Your task to perform on an android device: Go to privacy settings Image 0: 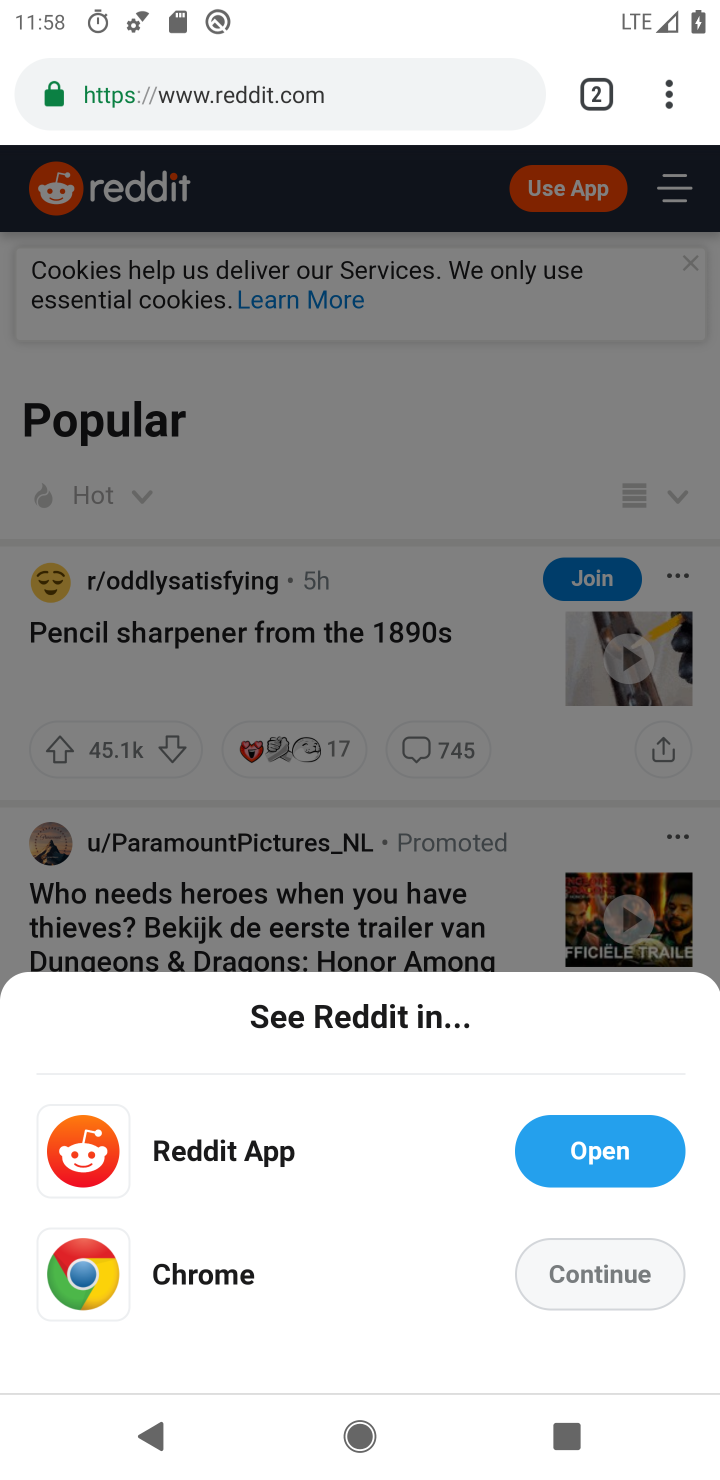
Step 0: press home button
Your task to perform on an android device: Go to privacy settings Image 1: 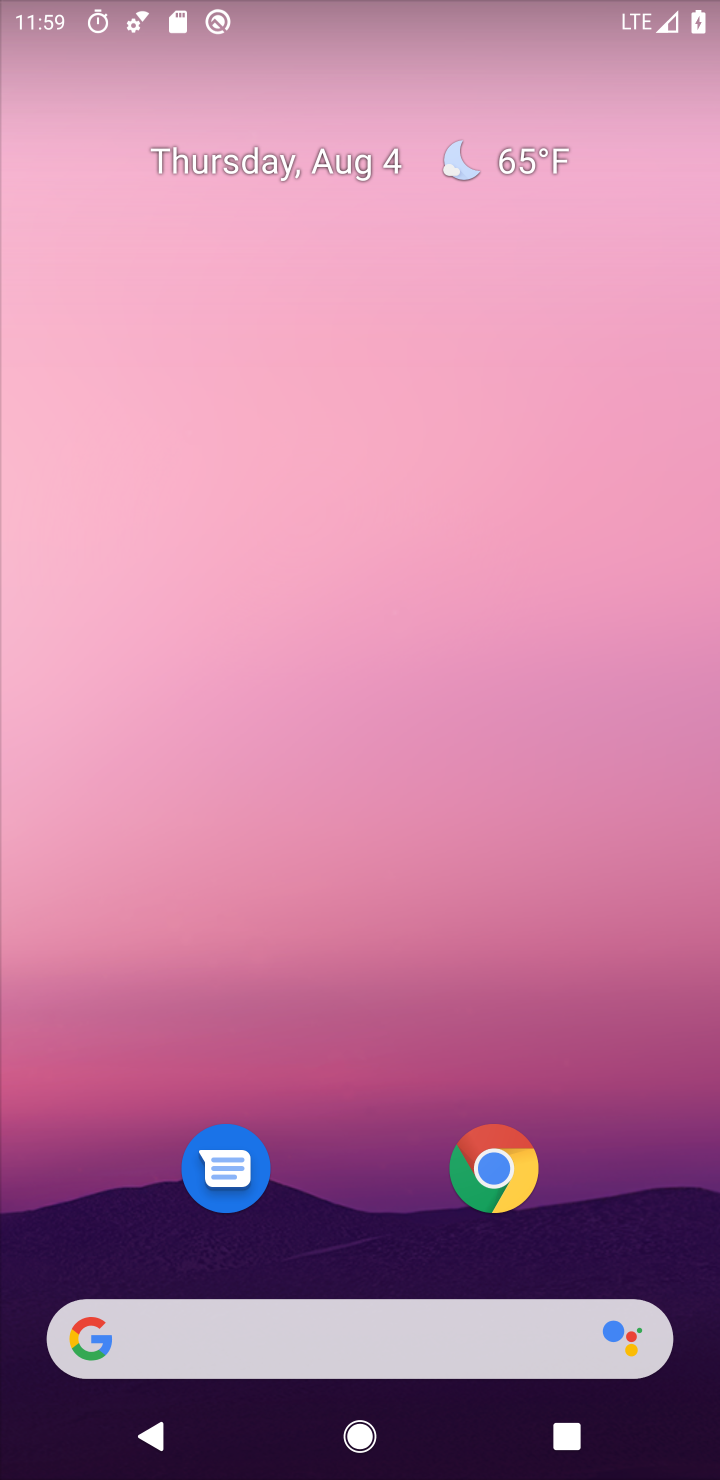
Step 1: drag from (318, 1240) to (323, 191)
Your task to perform on an android device: Go to privacy settings Image 2: 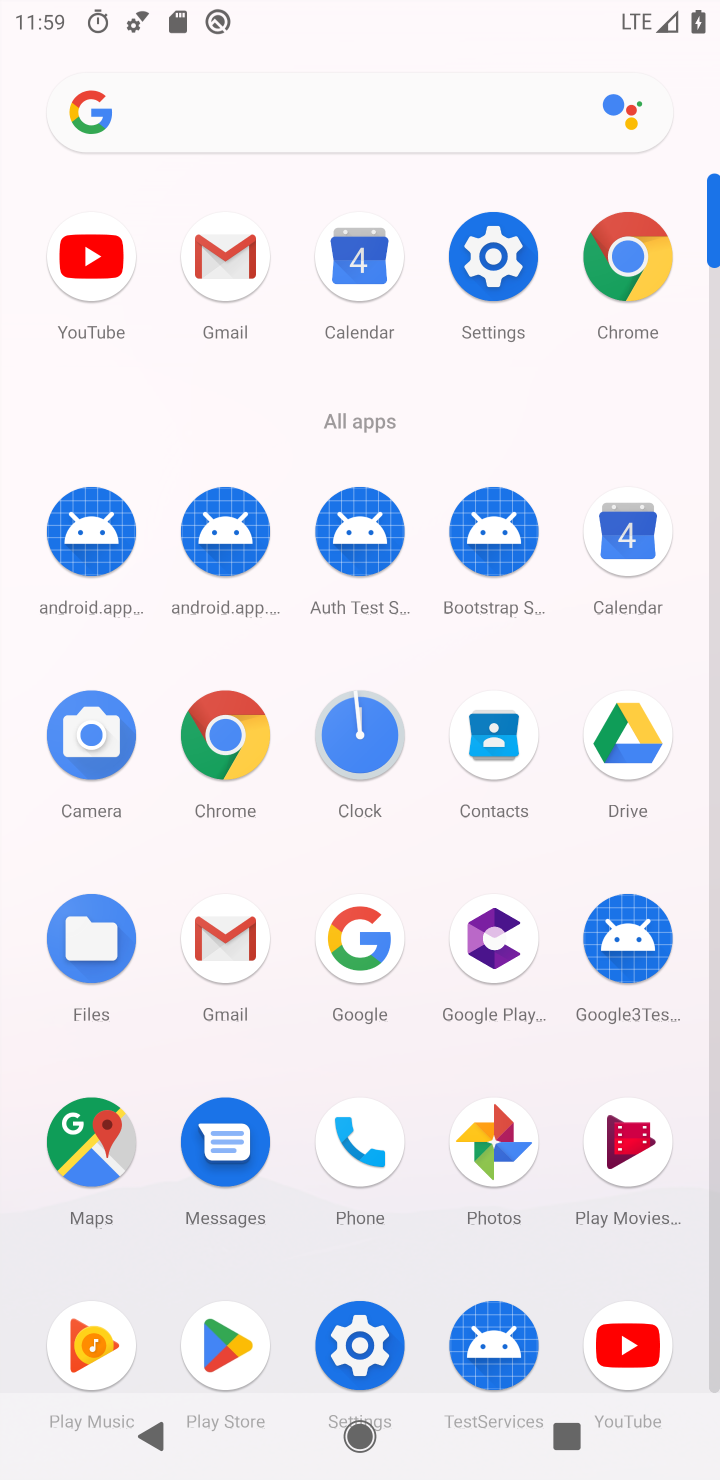
Step 2: click (340, 1341)
Your task to perform on an android device: Go to privacy settings Image 3: 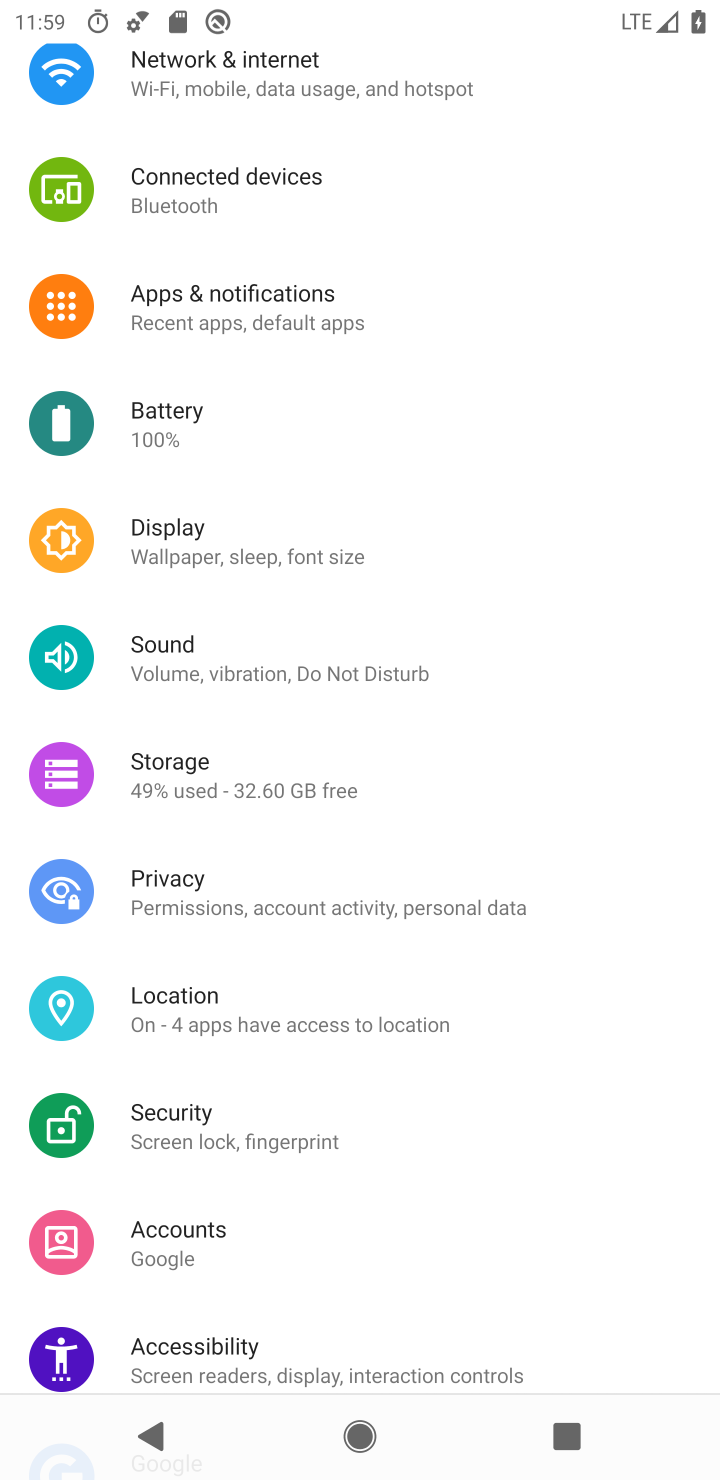
Step 3: click (184, 895)
Your task to perform on an android device: Go to privacy settings Image 4: 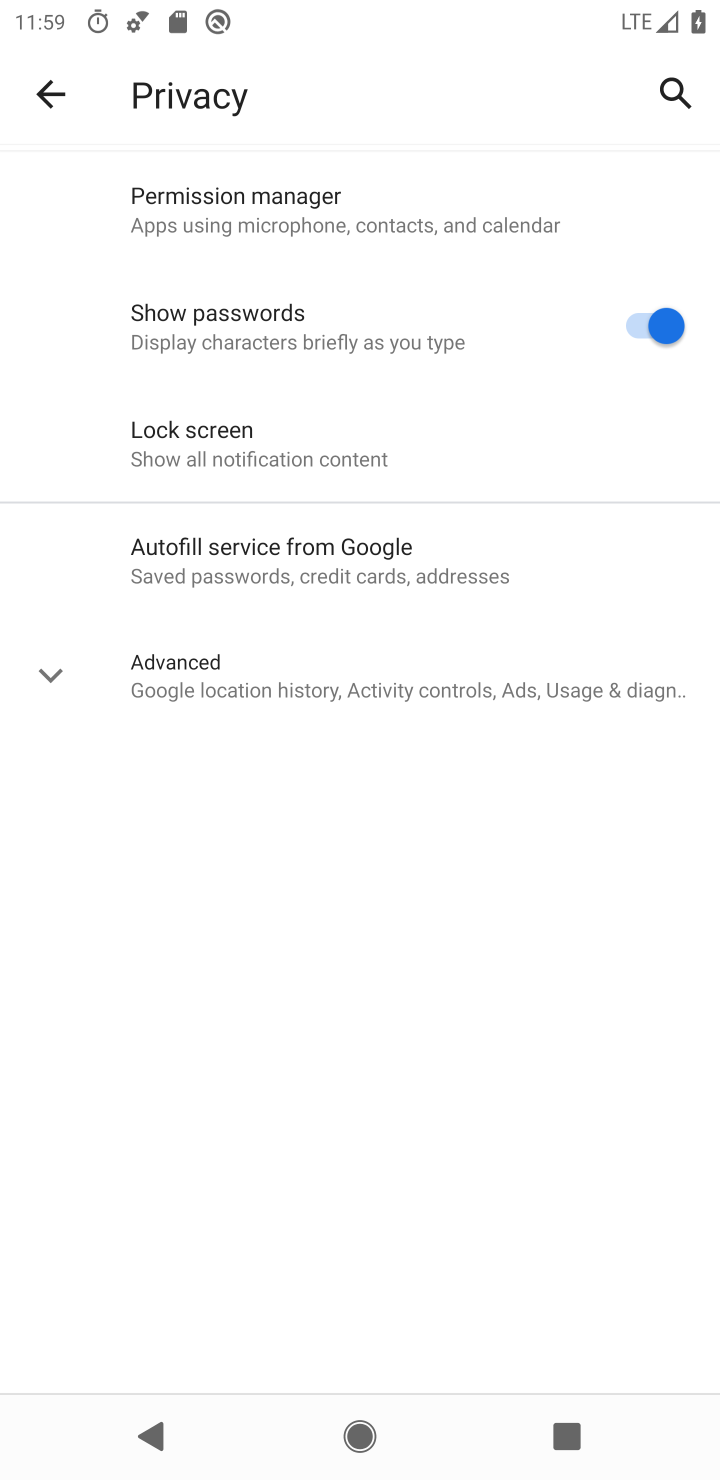
Step 4: task complete